Your task to perform on an android device: What's on my calendar today? Image 0: 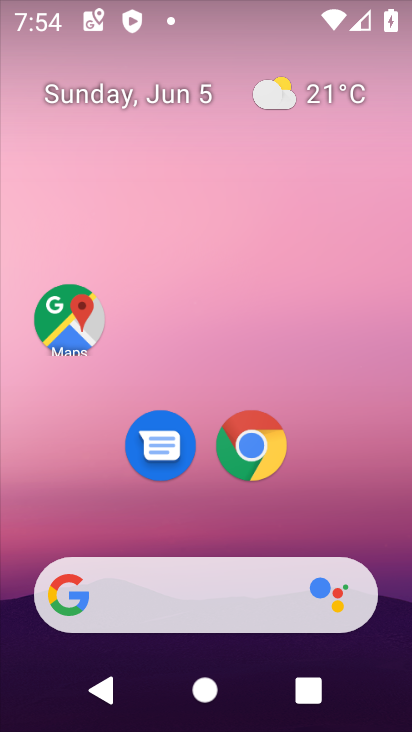
Step 0: drag from (367, 517) to (316, 114)
Your task to perform on an android device: What's on my calendar today? Image 1: 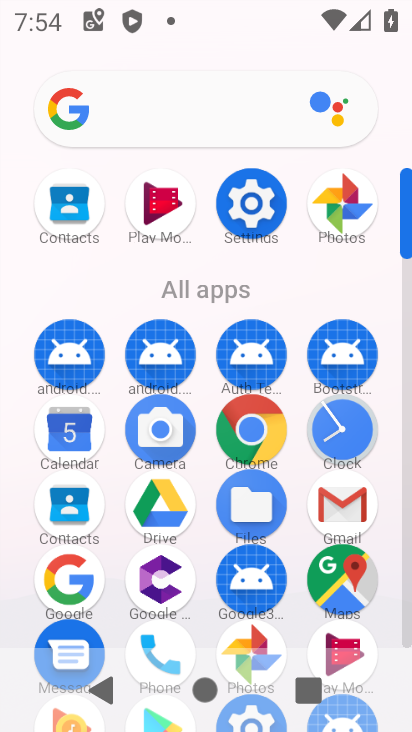
Step 1: click (56, 440)
Your task to perform on an android device: What's on my calendar today? Image 2: 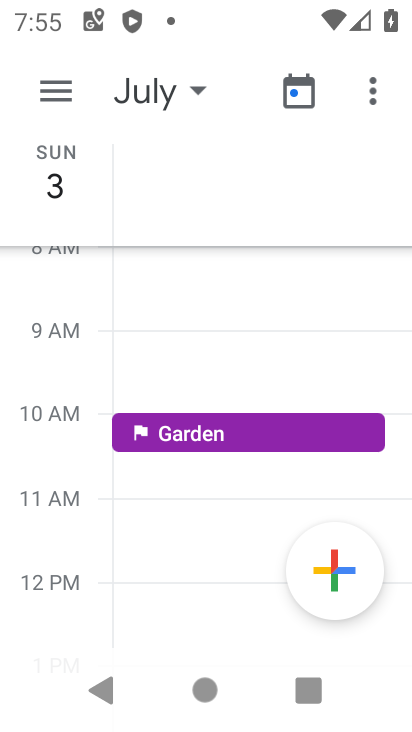
Step 2: click (49, 110)
Your task to perform on an android device: What's on my calendar today? Image 3: 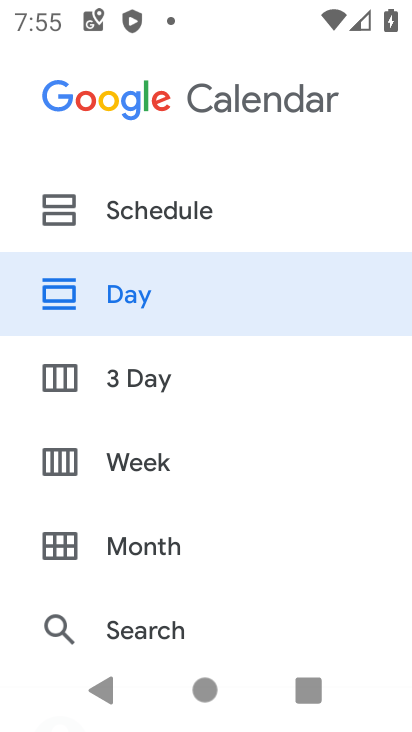
Step 3: click (157, 549)
Your task to perform on an android device: What's on my calendar today? Image 4: 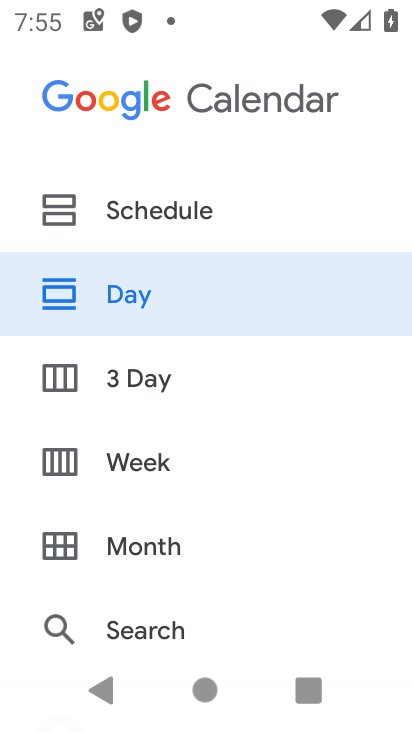
Step 4: click (167, 536)
Your task to perform on an android device: What's on my calendar today? Image 5: 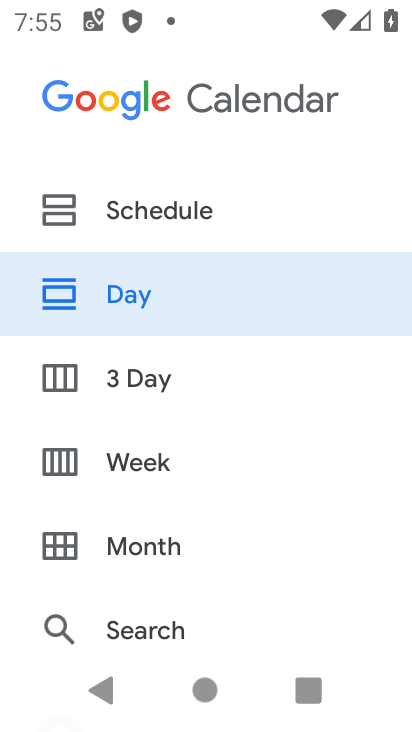
Step 5: click (156, 544)
Your task to perform on an android device: What's on my calendar today? Image 6: 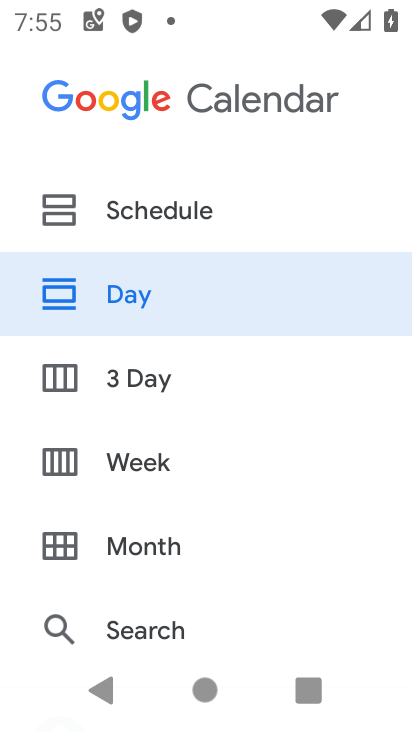
Step 6: click (61, 538)
Your task to perform on an android device: What's on my calendar today? Image 7: 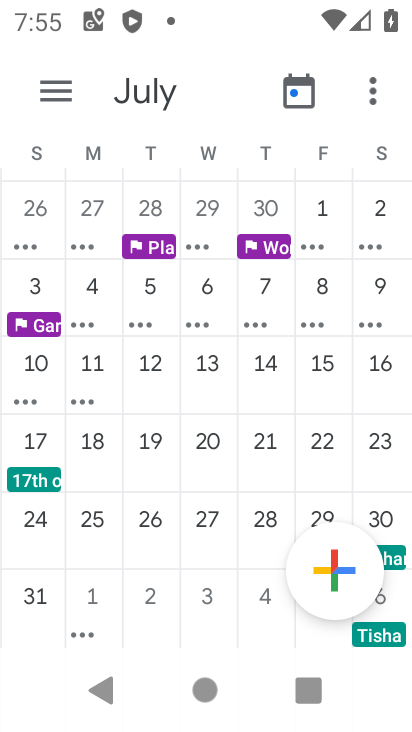
Step 7: drag from (139, 405) to (393, 352)
Your task to perform on an android device: What's on my calendar today? Image 8: 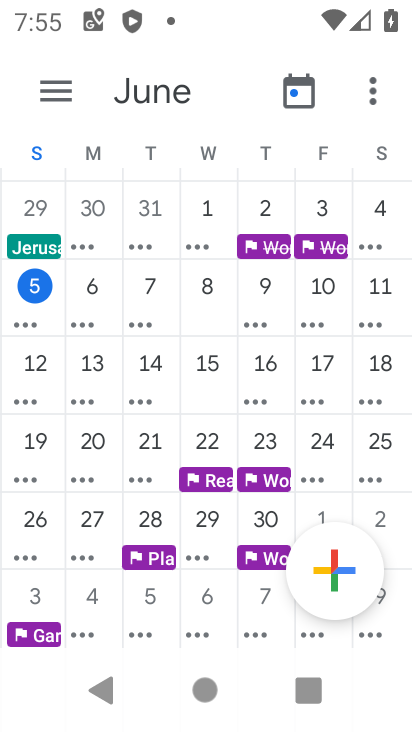
Step 8: click (60, 92)
Your task to perform on an android device: What's on my calendar today? Image 9: 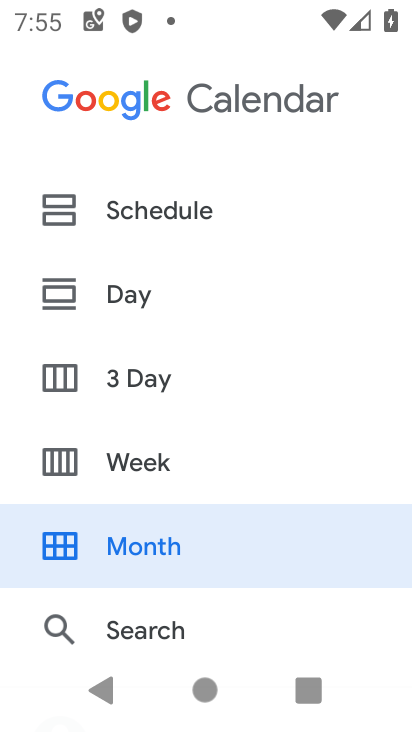
Step 9: click (131, 212)
Your task to perform on an android device: What's on my calendar today? Image 10: 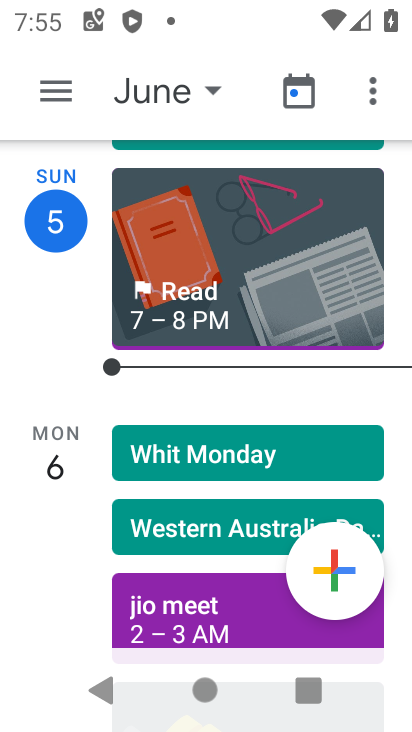
Step 10: task complete